Your task to perform on an android device: Open sound settings Image 0: 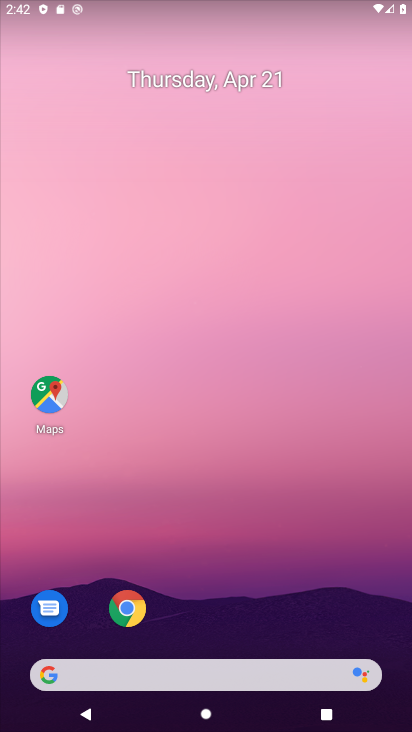
Step 0: drag from (329, 621) to (275, 32)
Your task to perform on an android device: Open sound settings Image 1: 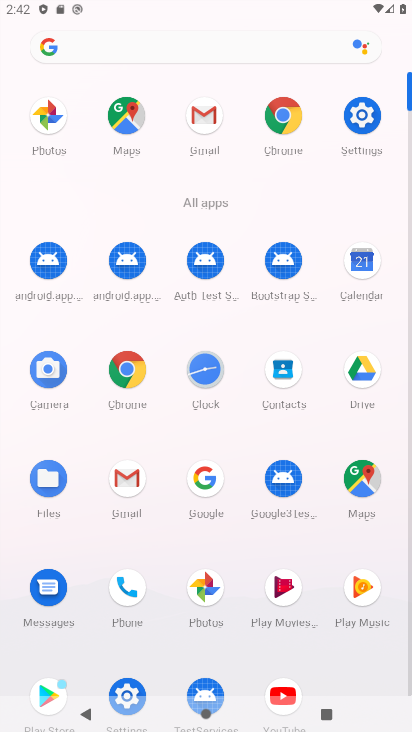
Step 1: click (370, 114)
Your task to perform on an android device: Open sound settings Image 2: 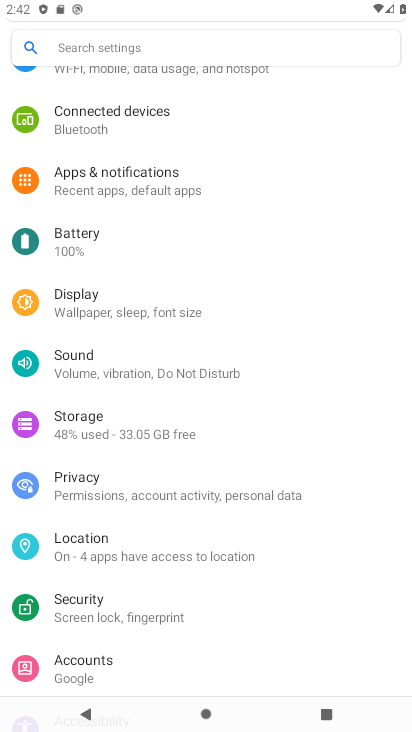
Step 2: click (200, 374)
Your task to perform on an android device: Open sound settings Image 3: 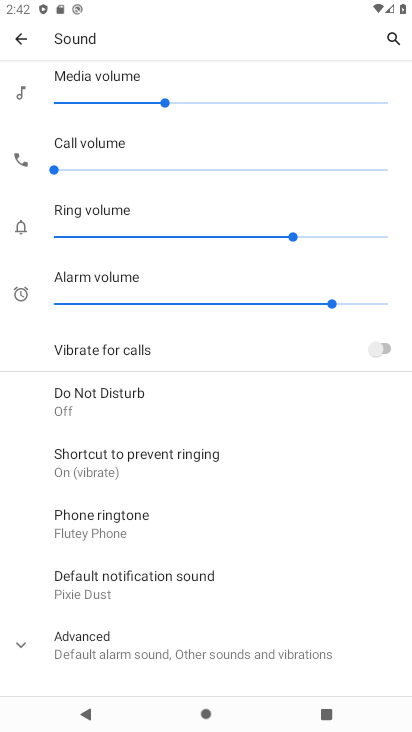
Step 3: task complete